Your task to perform on an android device: Open calendar and show me the third week of next month Image 0: 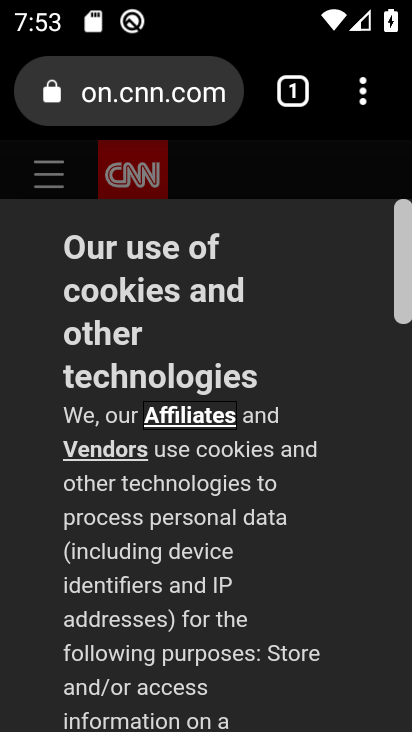
Step 0: press home button
Your task to perform on an android device: Open calendar and show me the third week of next month Image 1: 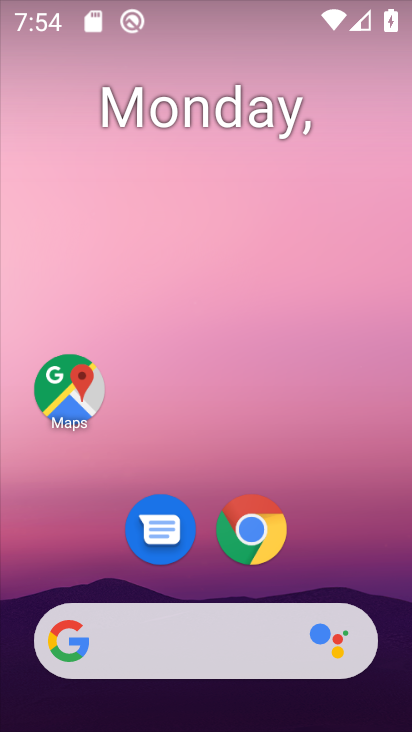
Step 1: drag from (148, 595) to (248, 12)
Your task to perform on an android device: Open calendar and show me the third week of next month Image 2: 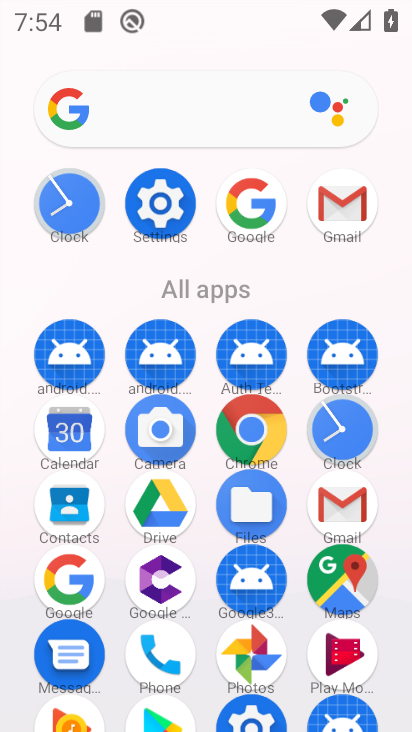
Step 2: drag from (292, 629) to (341, 237)
Your task to perform on an android device: Open calendar and show me the third week of next month Image 3: 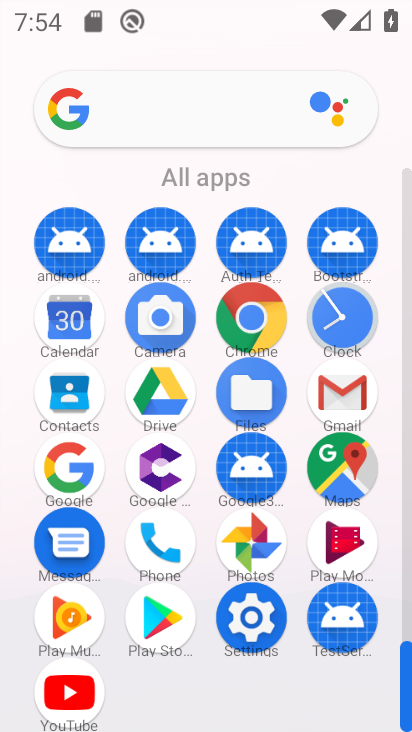
Step 3: click (76, 331)
Your task to perform on an android device: Open calendar and show me the third week of next month Image 4: 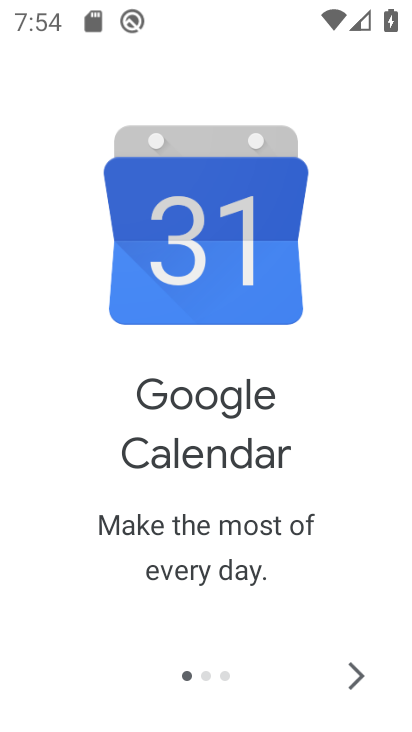
Step 4: click (349, 680)
Your task to perform on an android device: Open calendar and show me the third week of next month Image 5: 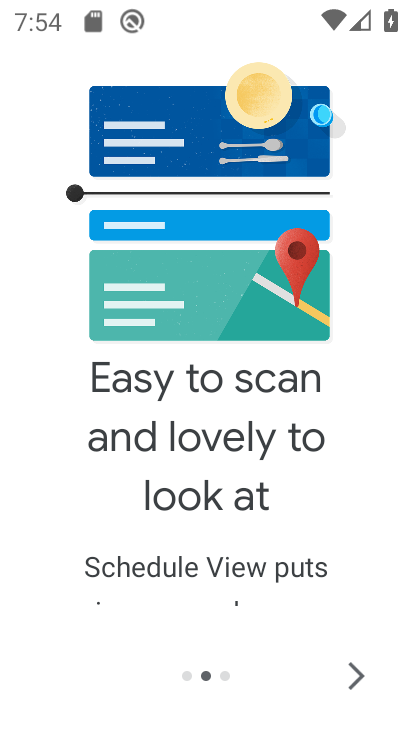
Step 5: click (349, 680)
Your task to perform on an android device: Open calendar and show me the third week of next month Image 6: 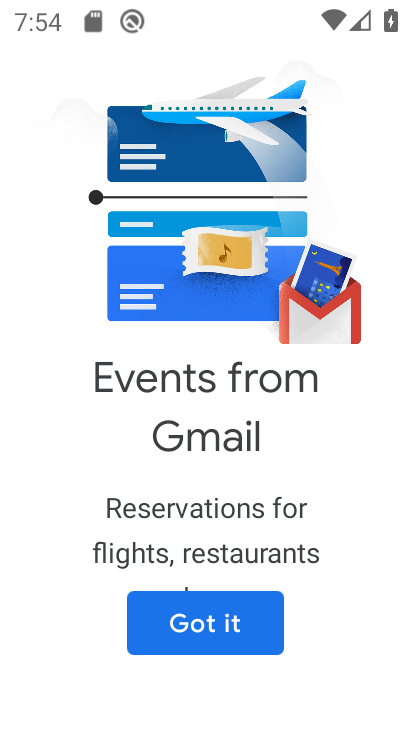
Step 6: click (223, 643)
Your task to perform on an android device: Open calendar and show me the third week of next month Image 7: 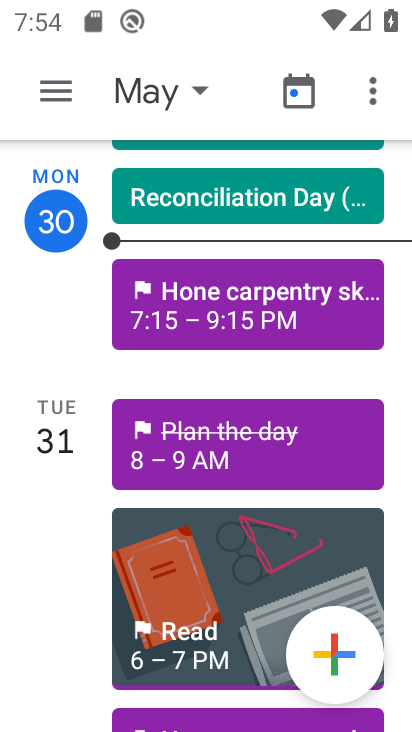
Step 7: click (144, 97)
Your task to perform on an android device: Open calendar and show me the third week of next month Image 8: 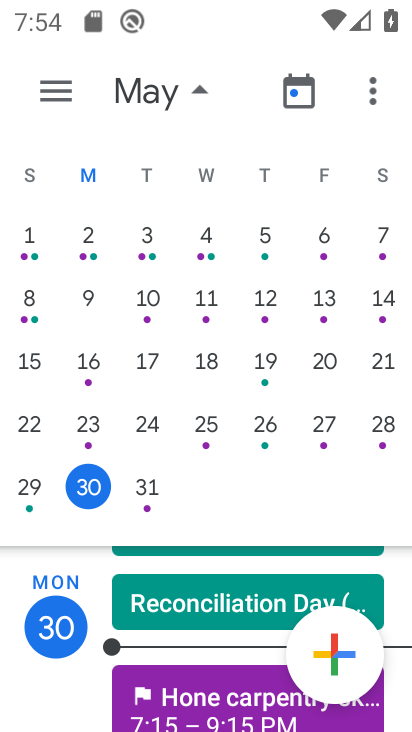
Step 8: drag from (358, 337) to (7, 329)
Your task to perform on an android device: Open calendar and show me the third week of next month Image 9: 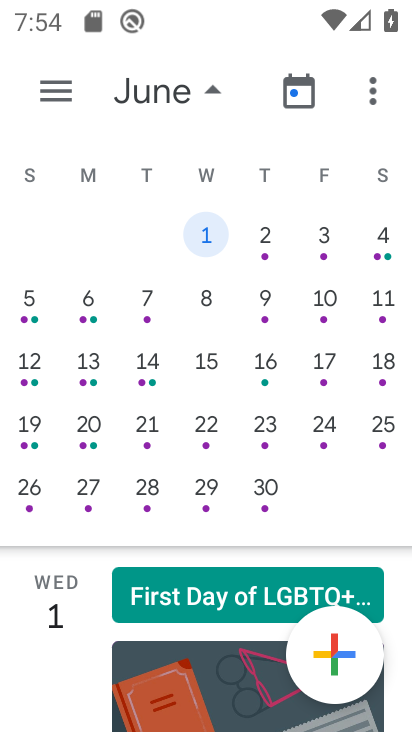
Step 9: click (25, 364)
Your task to perform on an android device: Open calendar and show me the third week of next month Image 10: 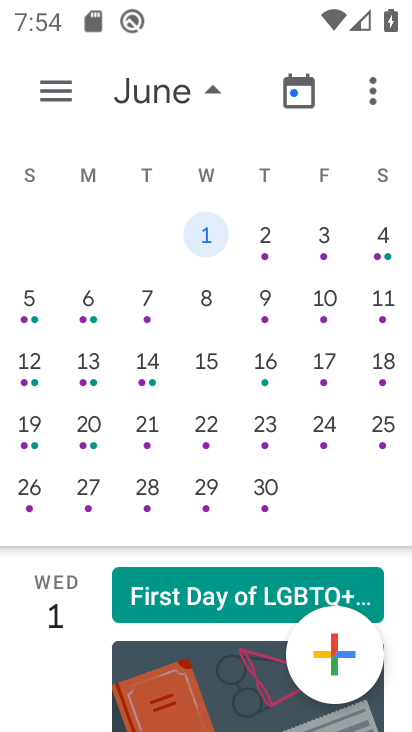
Step 10: click (32, 367)
Your task to perform on an android device: Open calendar and show me the third week of next month Image 11: 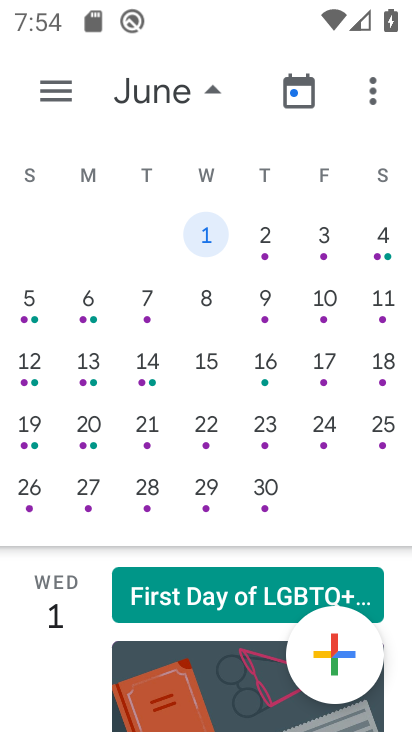
Step 11: click (34, 369)
Your task to perform on an android device: Open calendar and show me the third week of next month Image 12: 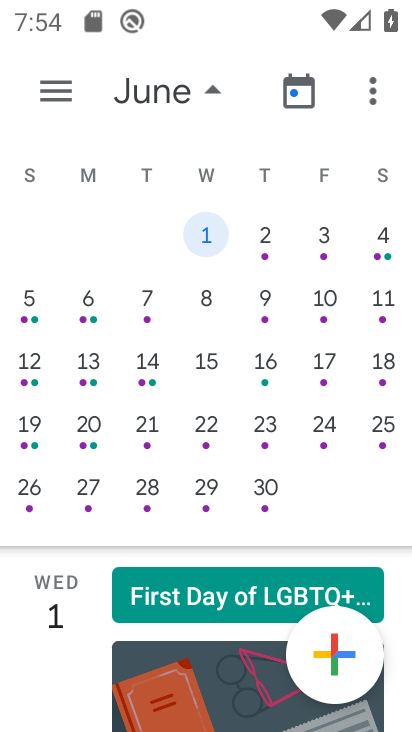
Step 12: click (31, 349)
Your task to perform on an android device: Open calendar and show me the third week of next month Image 13: 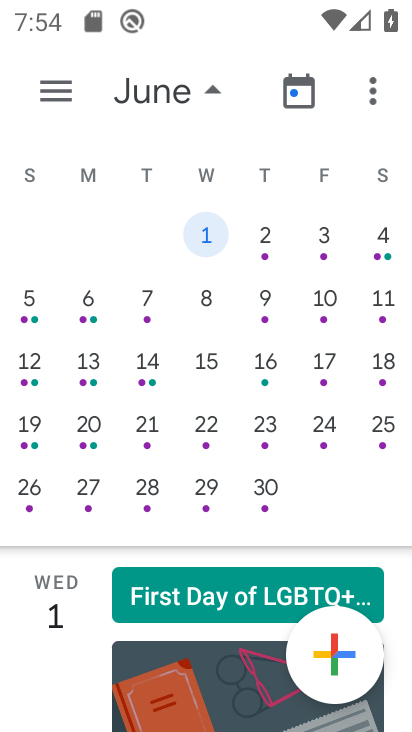
Step 13: click (30, 385)
Your task to perform on an android device: Open calendar and show me the third week of next month Image 14: 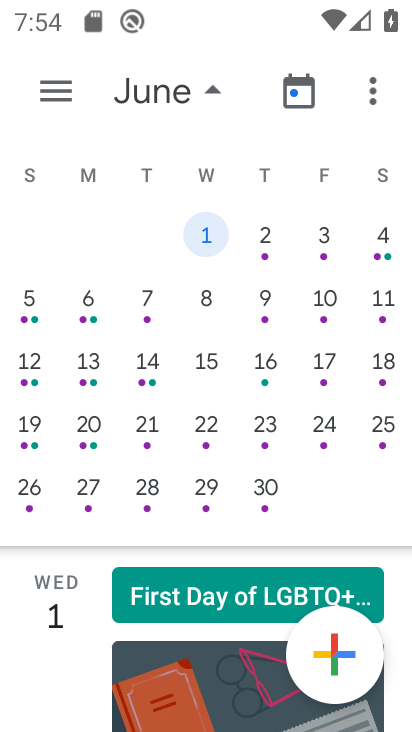
Step 14: click (31, 366)
Your task to perform on an android device: Open calendar and show me the third week of next month Image 15: 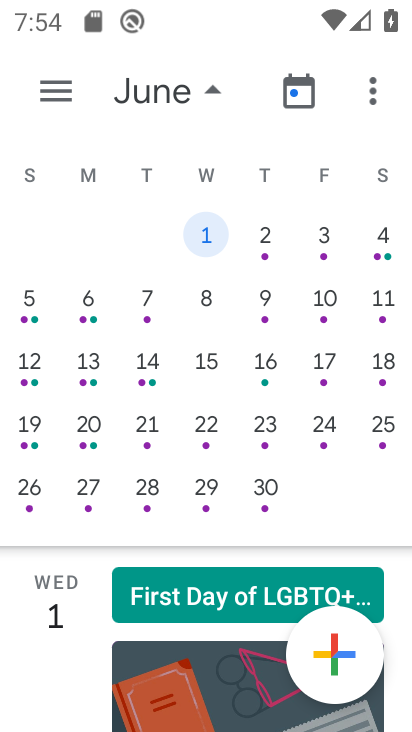
Step 15: click (35, 357)
Your task to perform on an android device: Open calendar and show me the third week of next month Image 16: 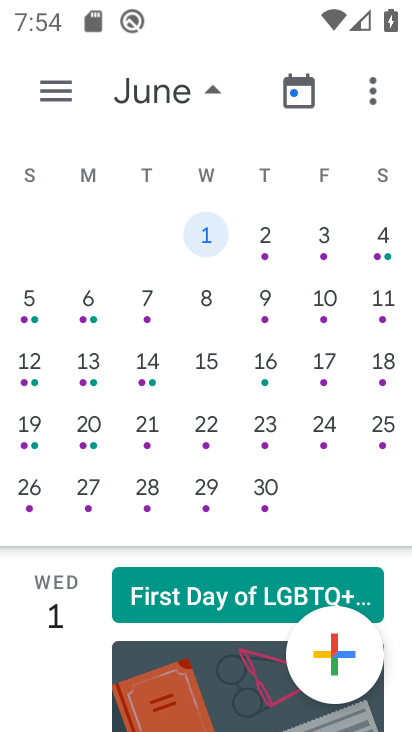
Step 16: click (37, 373)
Your task to perform on an android device: Open calendar and show me the third week of next month Image 17: 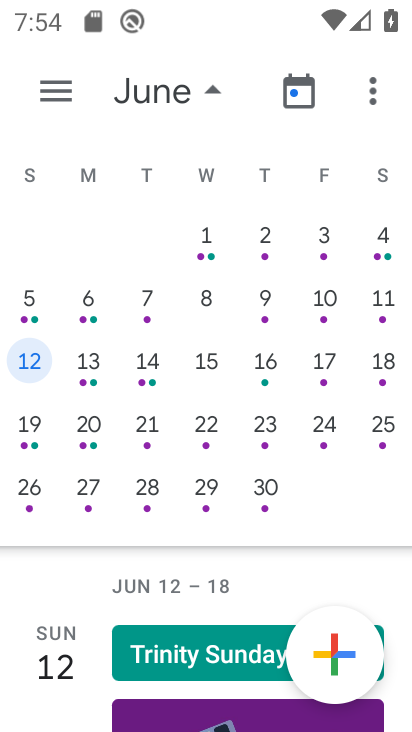
Step 17: task complete